Your task to perform on an android device: turn off wifi Image 0: 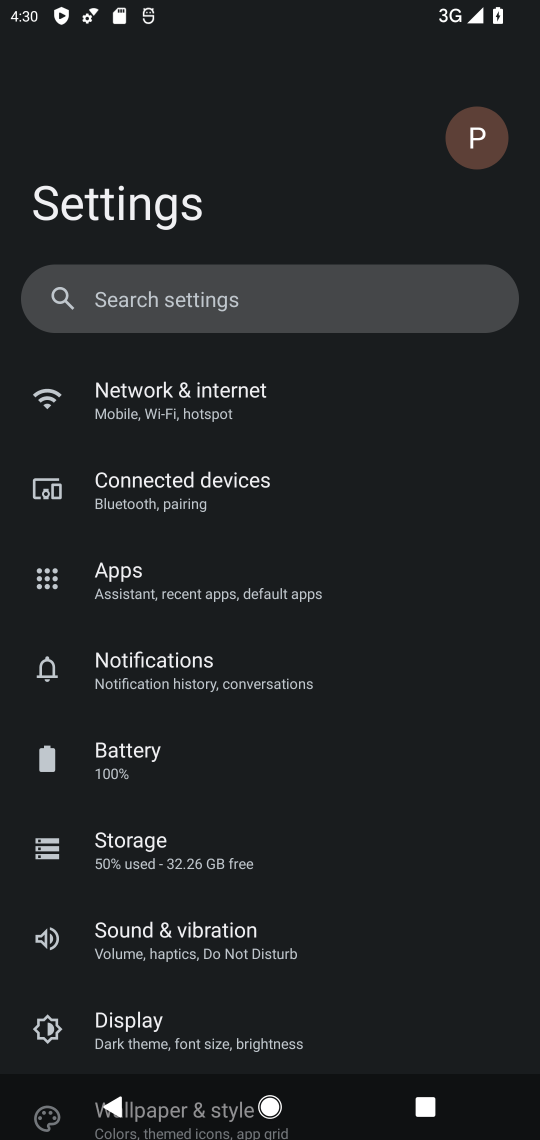
Step 0: click (274, 401)
Your task to perform on an android device: turn off wifi Image 1: 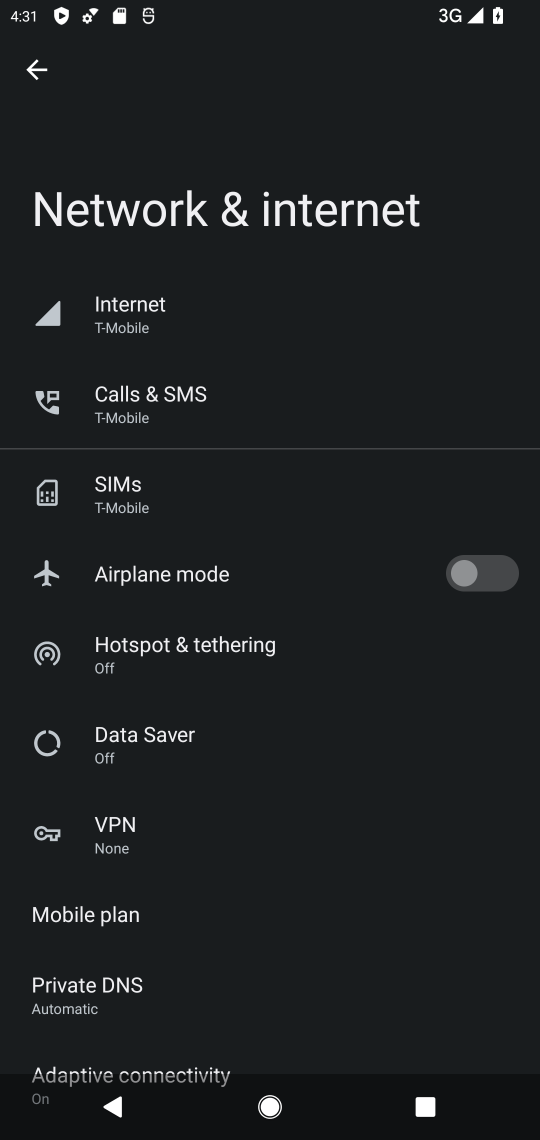
Step 1: task complete